Your task to perform on an android device: What's on my calendar tomorrow? Image 0: 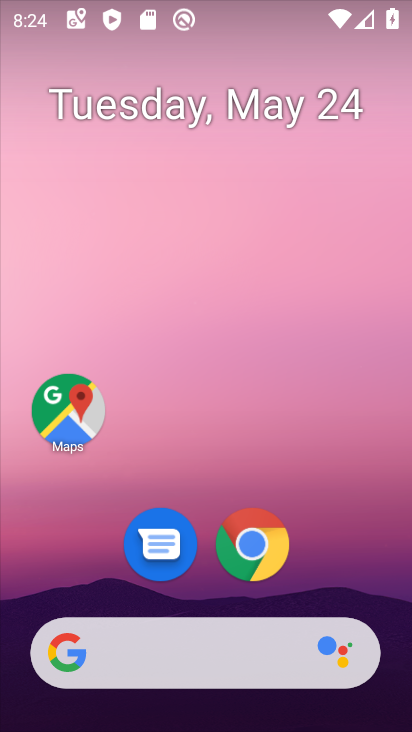
Step 0: drag from (215, 440) to (169, 4)
Your task to perform on an android device: What's on my calendar tomorrow? Image 1: 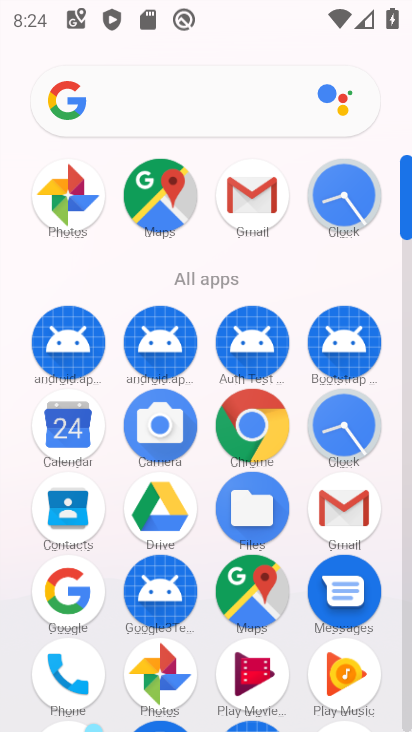
Step 1: click (66, 440)
Your task to perform on an android device: What's on my calendar tomorrow? Image 2: 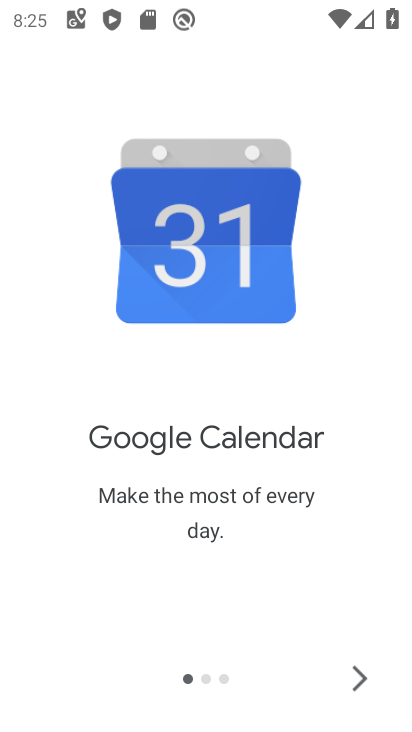
Step 2: click (357, 670)
Your task to perform on an android device: What's on my calendar tomorrow? Image 3: 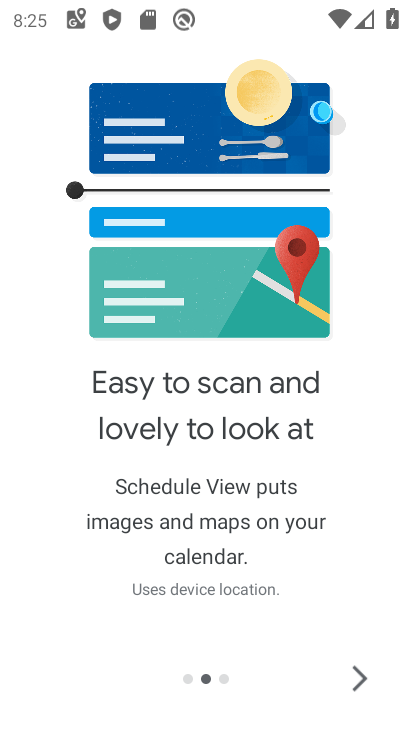
Step 3: click (353, 680)
Your task to perform on an android device: What's on my calendar tomorrow? Image 4: 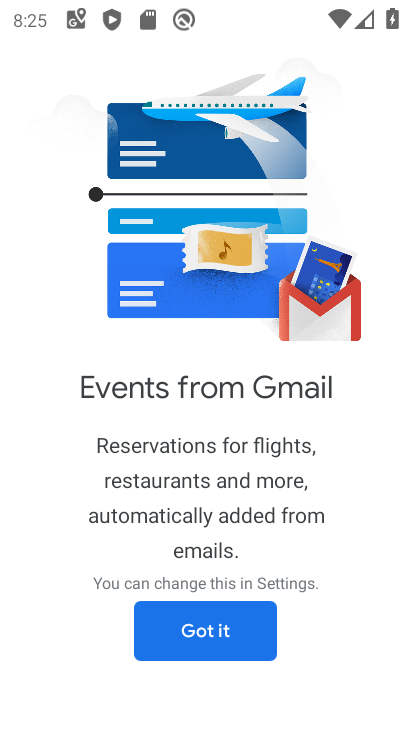
Step 4: click (244, 632)
Your task to perform on an android device: What's on my calendar tomorrow? Image 5: 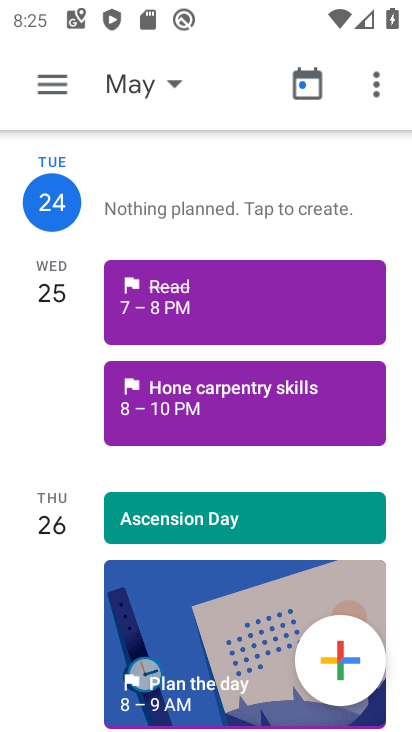
Step 5: click (153, 82)
Your task to perform on an android device: What's on my calendar tomorrow? Image 6: 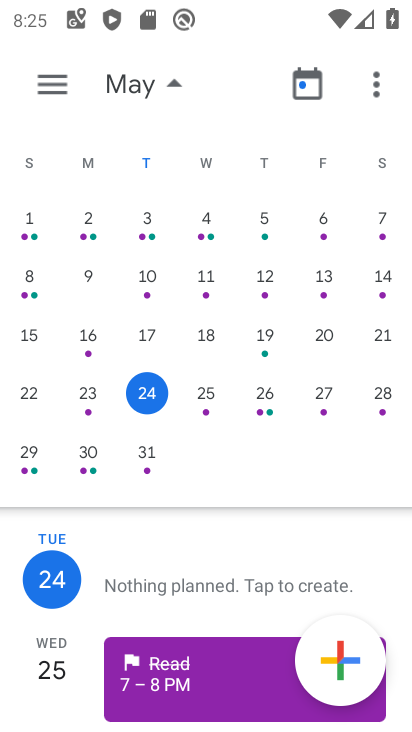
Step 6: click (209, 396)
Your task to perform on an android device: What's on my calendar tomorrow? Image 7: 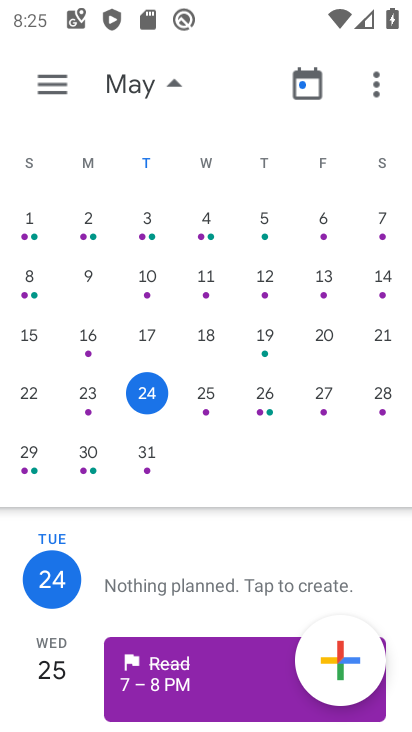
Step 7: click (207, 400)
Your task to perform on an android device: What's on my calendar tomorrow? Image 8: 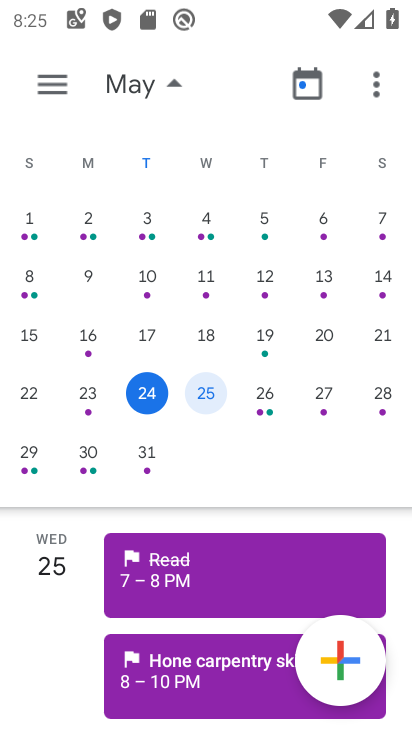
Step 8: click (172, 92)
Your task to perform on an android device: What's on my calendar tomorrow? Image 9: 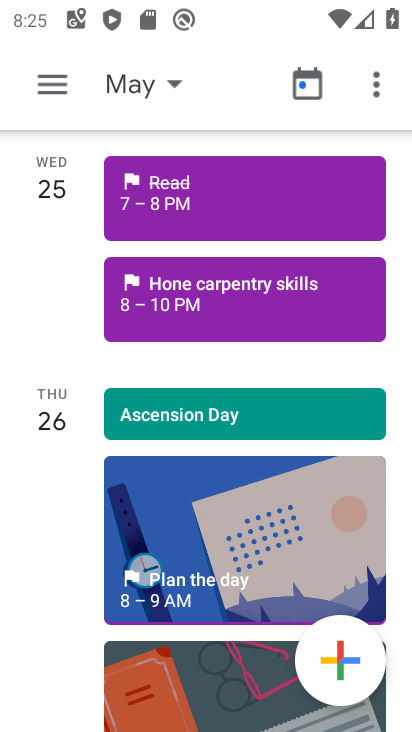
Step 9: task complete